Your task to perform on an android device: Go to Google Image 0: 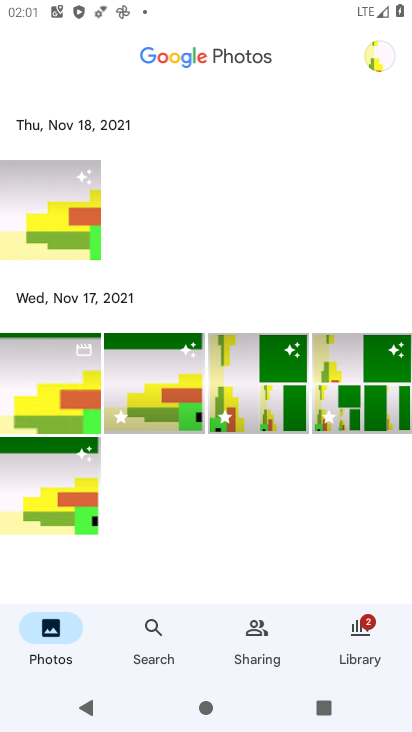
Step 0: press home button
Your task to perform on an android device: Go to Google Image 1: 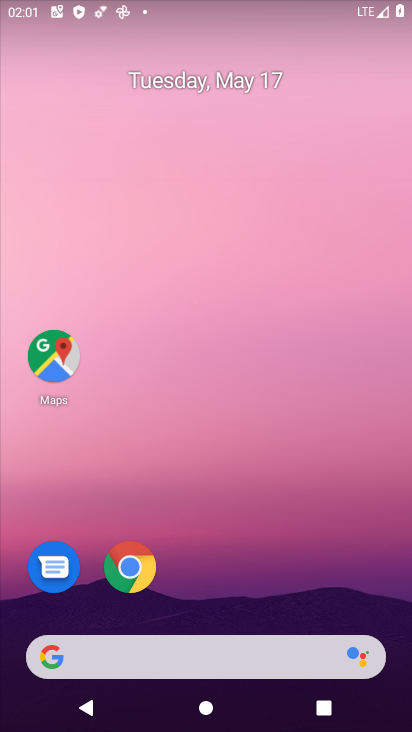
Step 1: click (129, 568)
Your task to perform on an android device: Go to Google Image 2: 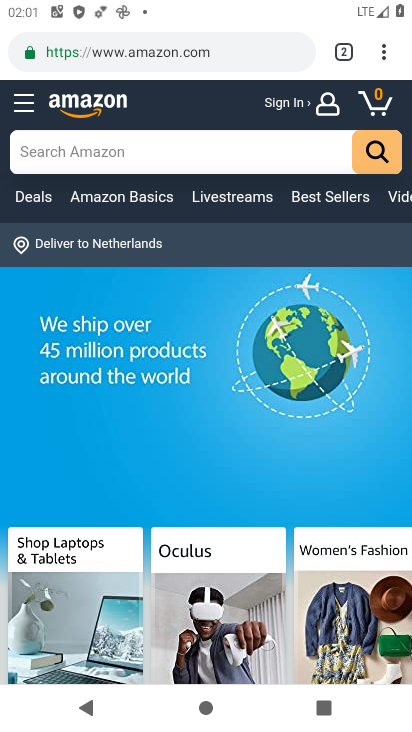
Step 2: task complete